Your task to perform on an android device: search for starred emails in the gmail app Image 0: 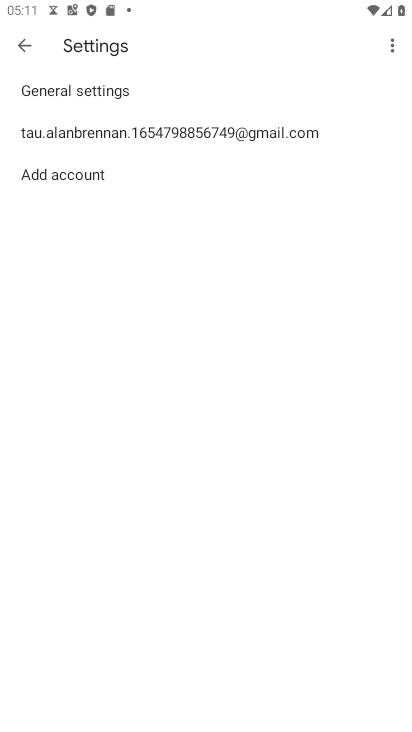
Step 0: press home button
Your task to perform on an android device: search for starred emails in the gmail app Image 1: 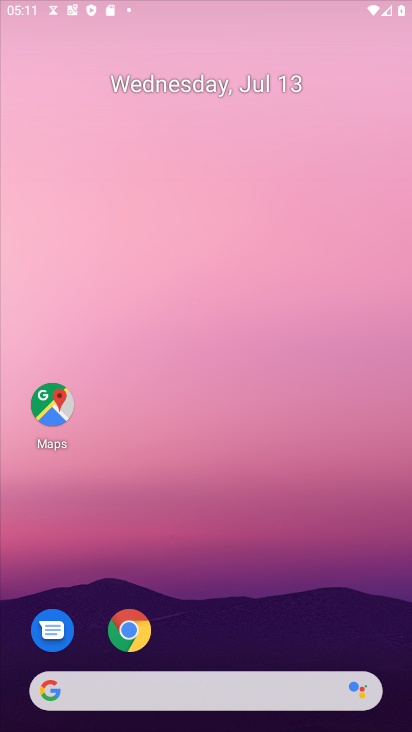
Step 1: drag from (266, 666) to (256, 18)
Your task to perform on an android device: search for starred emails in the gmail app Image 2: 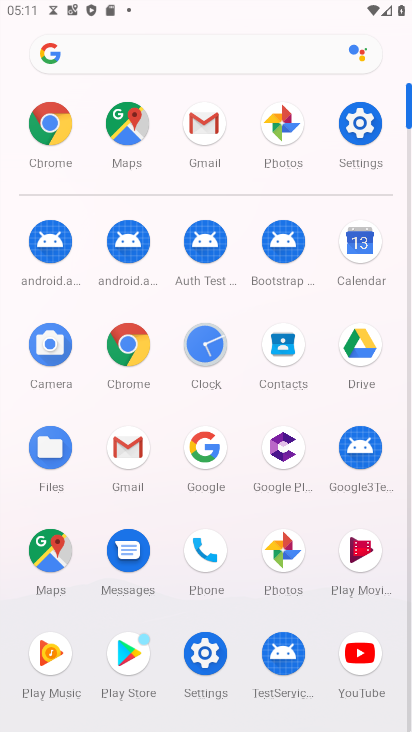
Step 2: click (121, 449)
Your task to perform on an android device: search for starred emails in the gmail app Image 3: 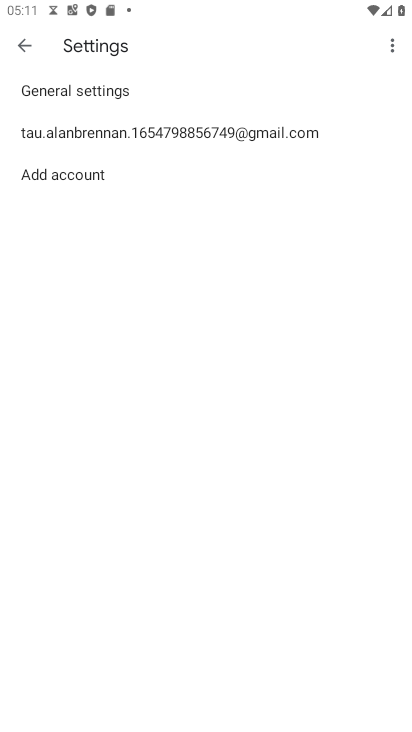
Step 3: press back button
Your task to perform on an android device: search for starred emails in the gmail app Image 4: 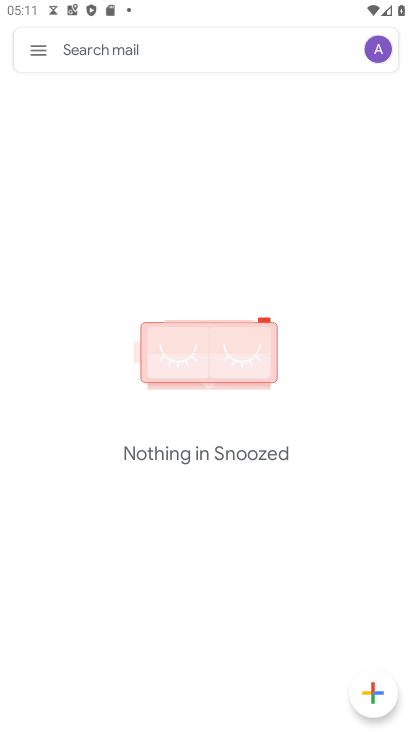
Step 4: click (30, 50)
Your task to perform on an android device: search for starred emails in the gmail app Image 5: 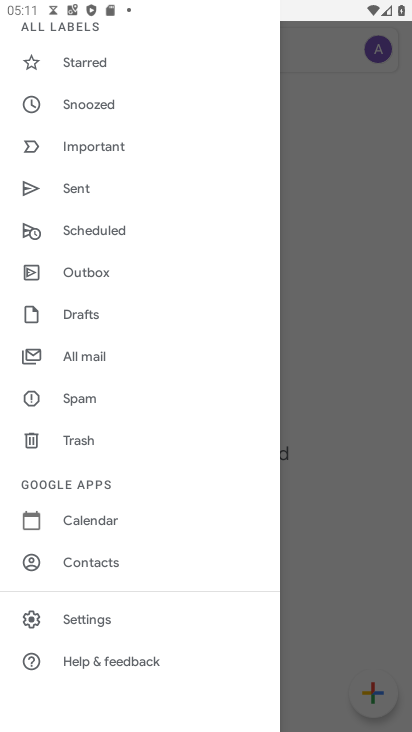
Step 5: click (97, 66)
Your task to perform on an android device: search for starred emails in the gmail app Image 6: 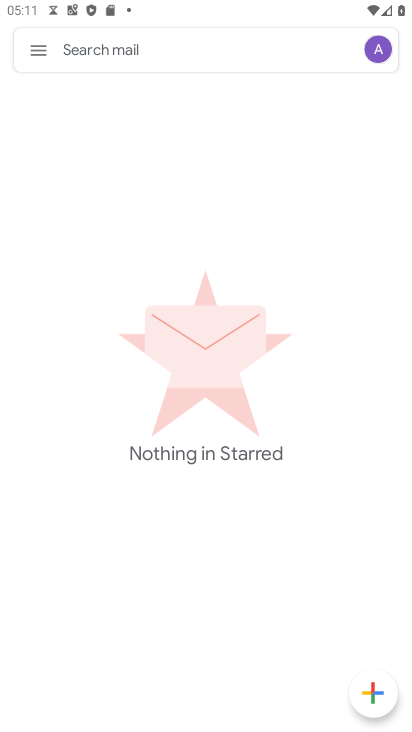
Step 6: task complete